Your task to perform on an android device: toggle sleep mode Image 0: 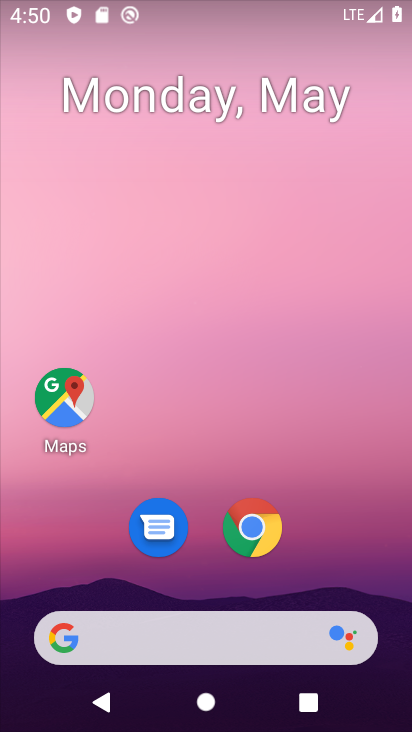
Step 0: drag from (388, 570) to (316, 183)
Your task to perform on an android device: toggle sleep mode Image 1: 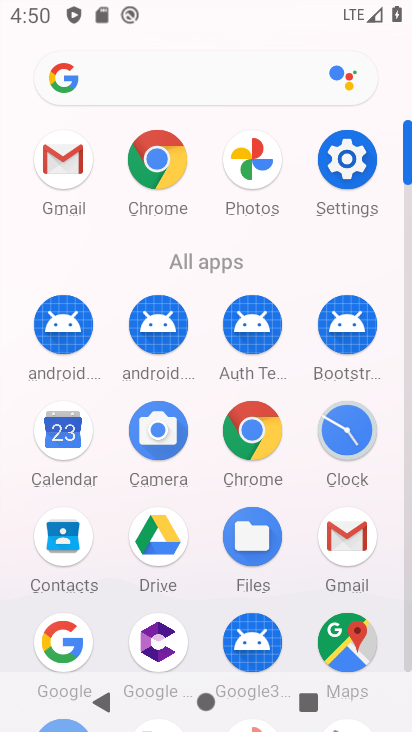
Step 1: click (335, 165)
Your task to perform on an android device: toggle sleep mode Image 2: 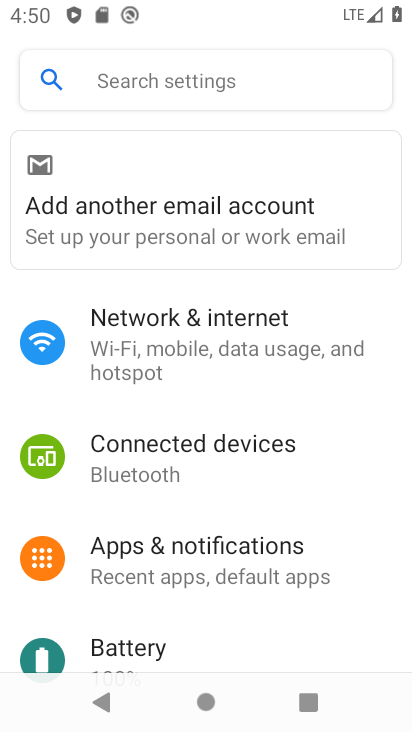
Step 2: drag from (299, 645) to (293, 98)
Your task to perform on an android device: toggle sleep mode Image 3: 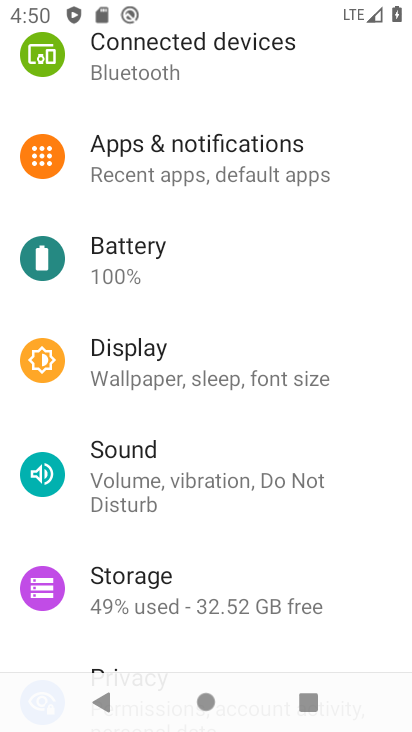
Step 3: click (117, 363)
Your task to perform on an android device: toggle sleep mode Image 4: 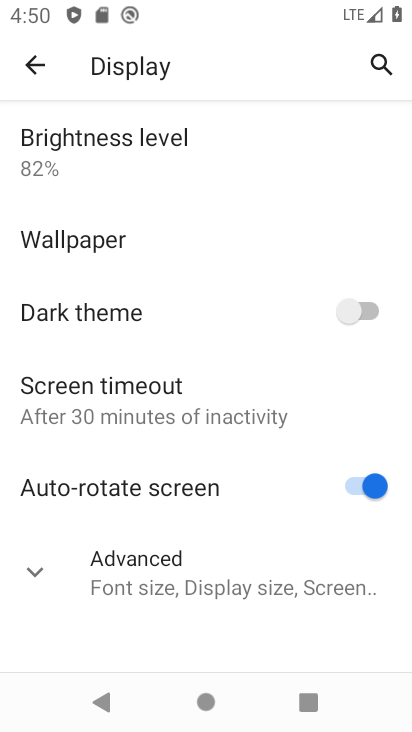
Step 4: click (112, 392)
Your task to perform on an android device: toggle sleep mode Image 5: 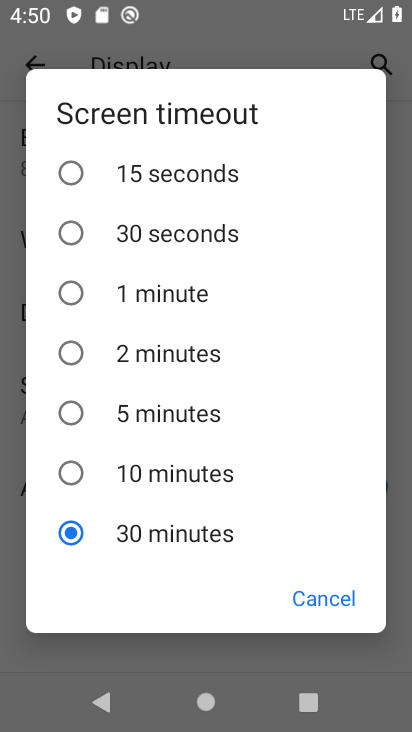
Step 5: click (72, 354)
Your task to perform on an android device: toggle sleep mode Image 6: 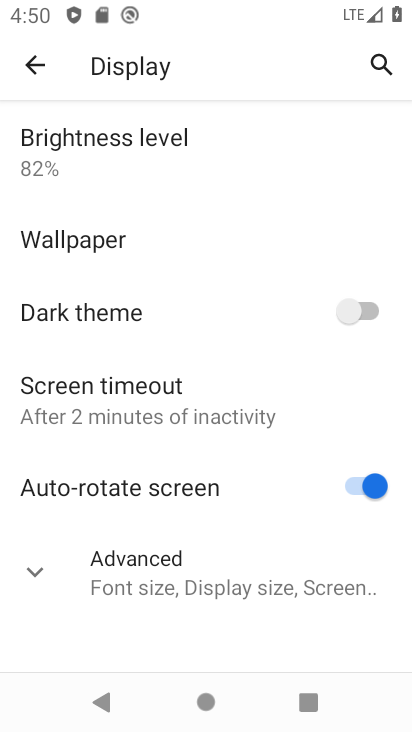
Step 6: task complete